Your task to perform on an android device: Open my contact list Image 0: 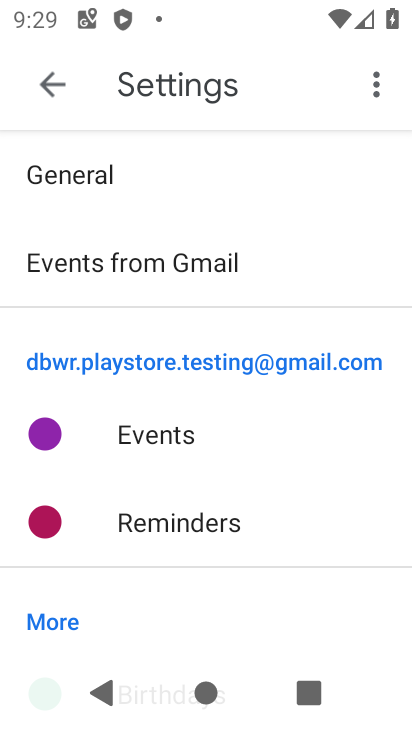
Step 0: press home button
Your task to perform on an android device: Open my contact list Image 1: 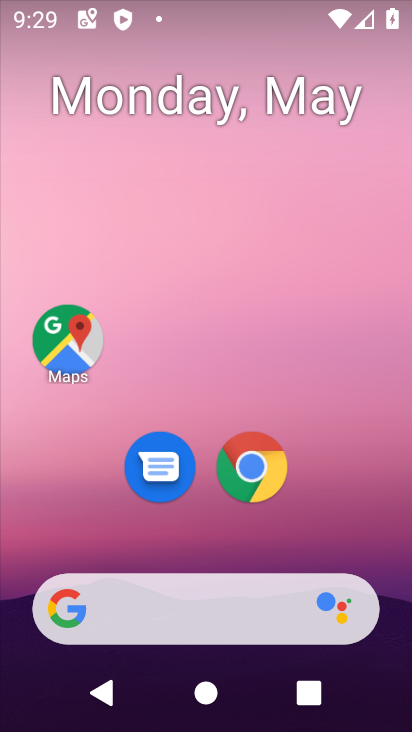
Step 1: drag from (242, 639) to (282, 246)
Your task to perform on an android device: Open my contact list Image 2: 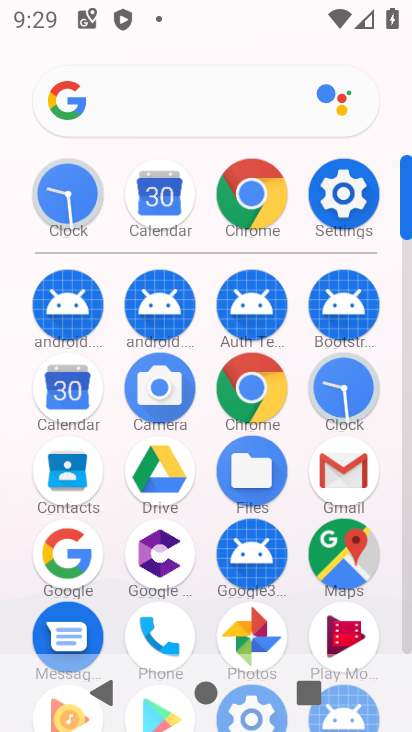
Step 2: click (161, 618)
Your task to perform on an android device: Open my contact list Image 3: 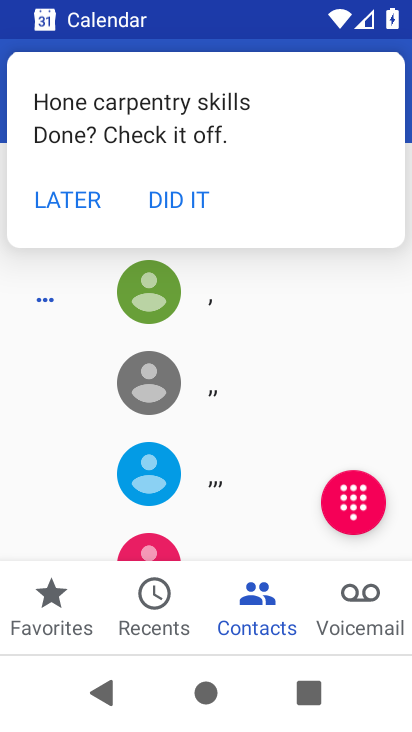
Step 3: click (254, 592)
Your task to perform on an android device: Open my contact list Image 4: 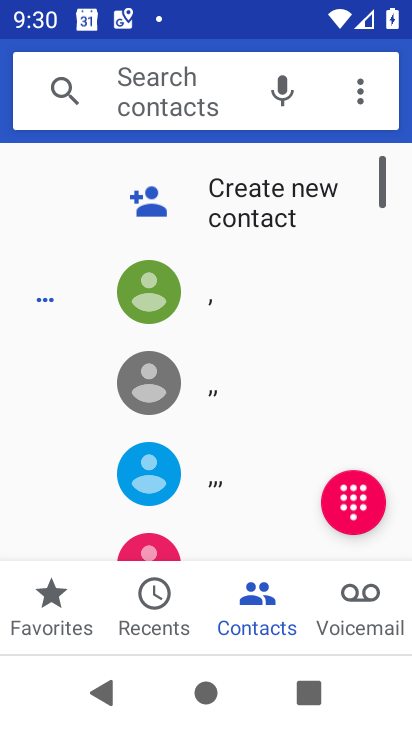
Step 4: task complete